Your task to perform on an android device: Is it going to rain today? Image 0: 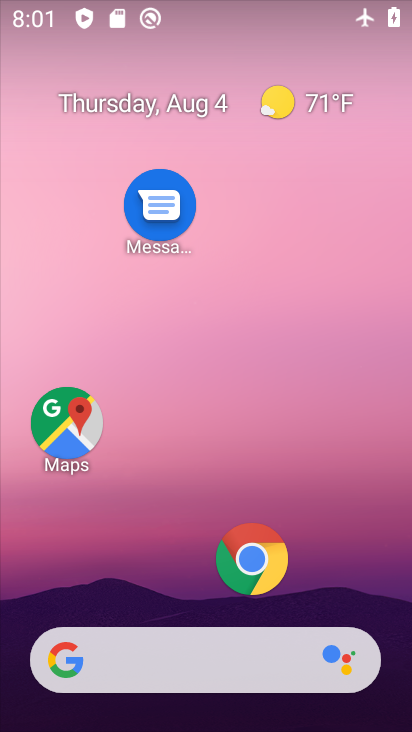
Step 0: drag from (224, 579) to (355, 1)
Your task to perform on an android device: Is it going to rain today? Image 1: 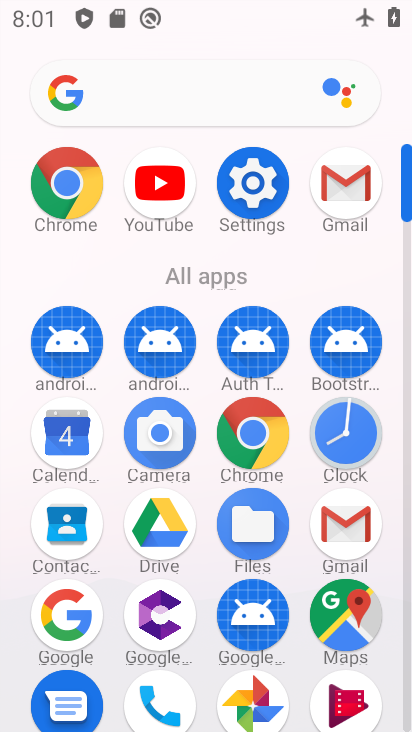
Step 1: drag from (210, 643) to (209, 185)
Your task to perform on an android device: Is it going to rain today? Image 2: 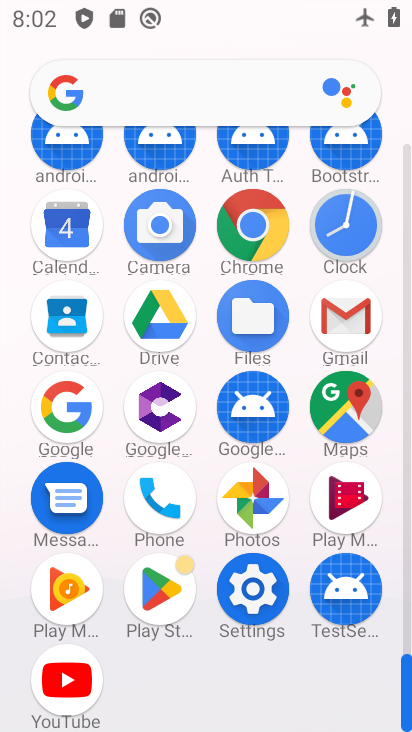
Step 2: click (62, 427)
Your task to perform on an android device: Is it going to rain today? Image 3: 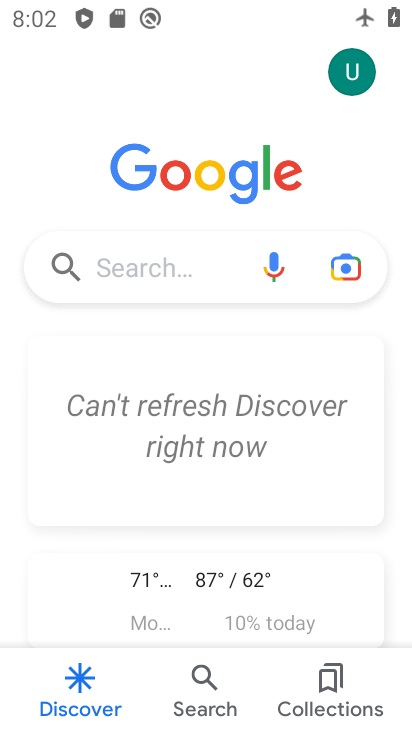
Step 3: drag from (223, 515) to (216, 194)
Your task to perform on an android device: Is it going to rain today? Image 4: 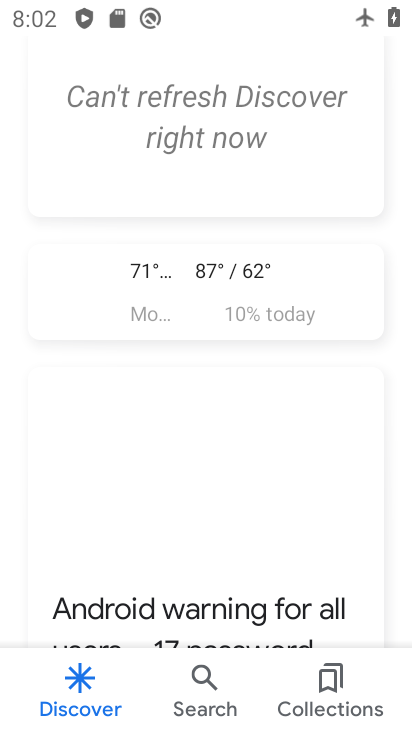
Step 4: click (211, 287)
Your task to perform on an android device: Is it going to rain today? Image 5: 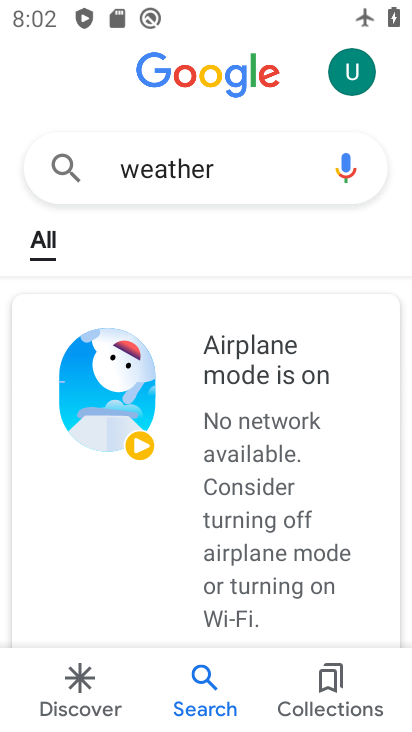
Step 5: task complete